Your task to perform on an android device: Go to network settings Image 0: 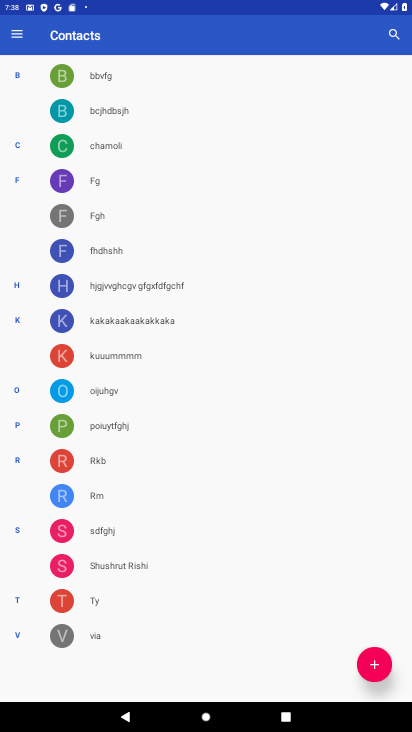
Step 0: press home button
Your task to perform on an android device: Go to network settings Image 1: 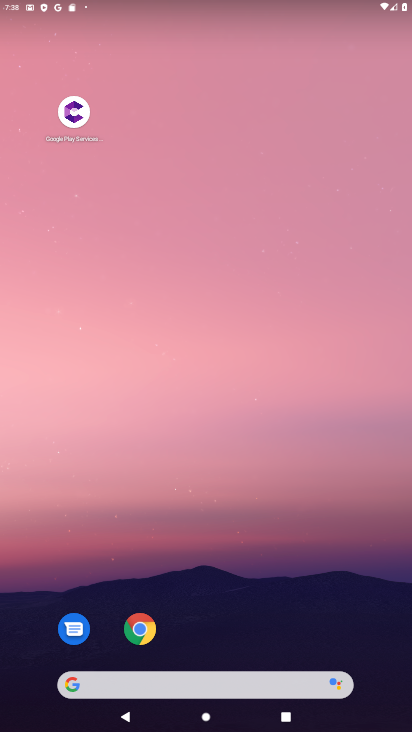
Step 1: drag from (183, 658) to (142, 5)
Your task to perform on an android device: Go to network settings Image 2: 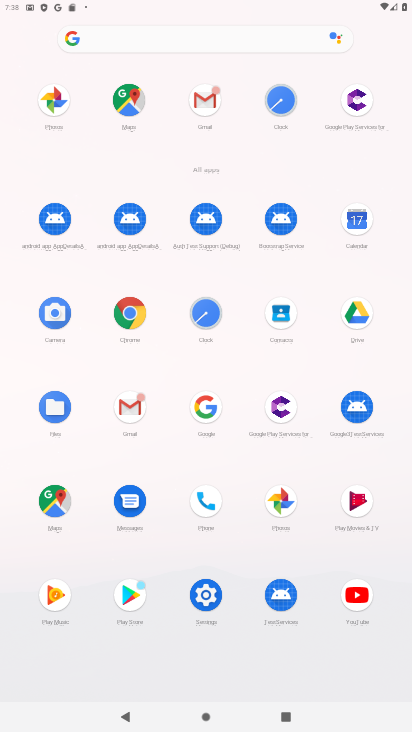
Step 2: click (203, 609)
Your task to perform on an android device: Go to network settings Image 3: 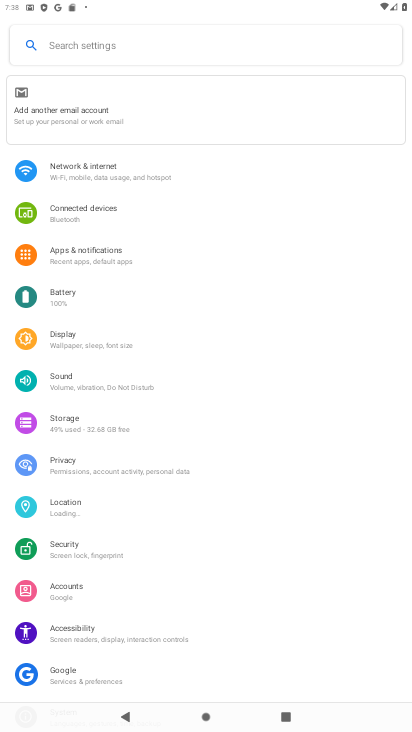
Step 3: click (79, 180)
Your task to perform on an android device: Go to network settings Image 4: 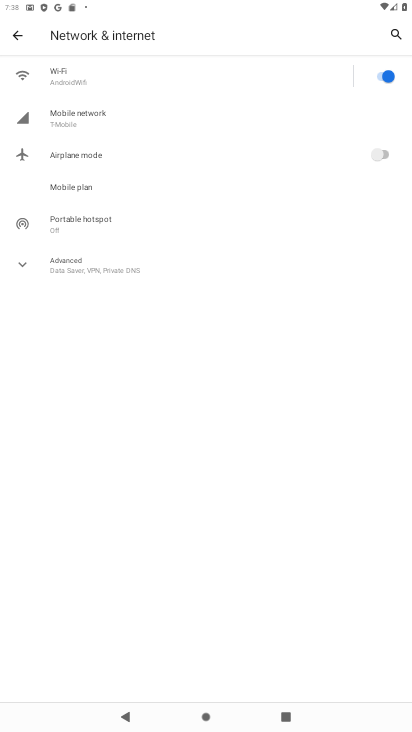
Step 4: click (72, 117)
Your task to perform on an android device: Go to network settings Image 5: 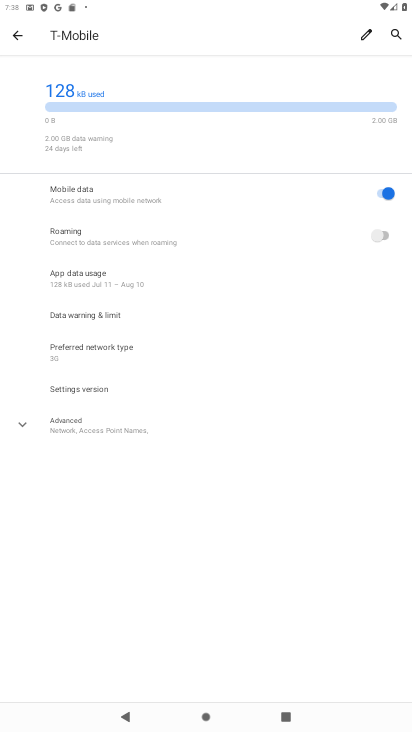
Step 5: task complete